Your task to perform on an android device: star an email in the gmail app Image 0: 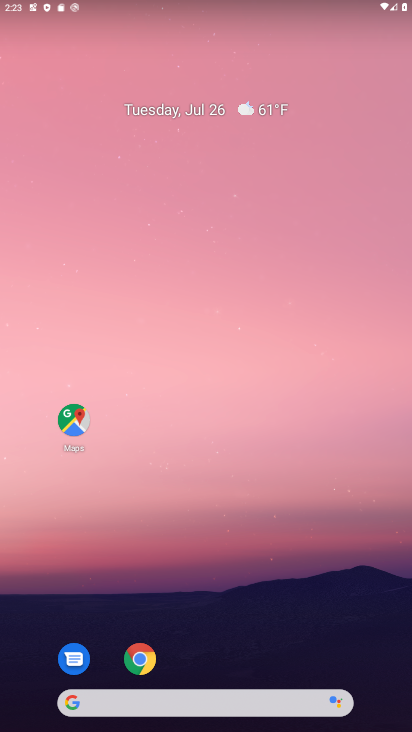
Step 0: click (274, 660)
Your task to perform on an android device: star an email in the gmail app Image 1: 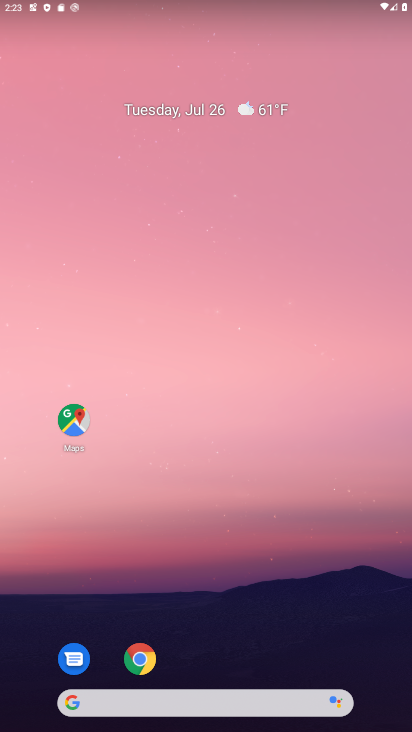
Step 1: drag from (184, 634) to (178, 71)
Your task to perform on an android device: star an email in the gmail app Image 2: 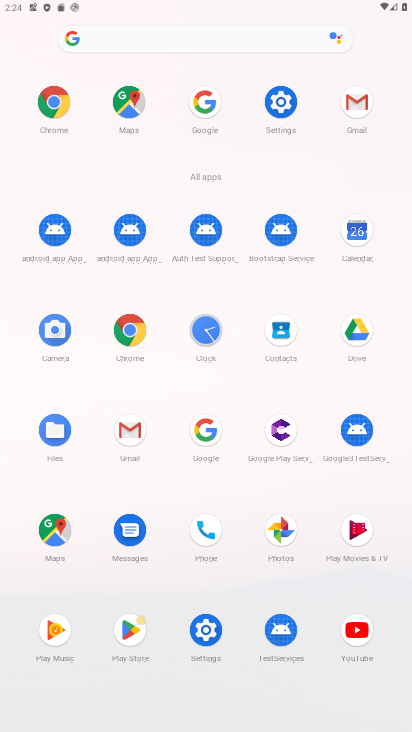
Step 2: click (355, 118)
Your task to perform on an android device: star an email in the gmail app Image 3: 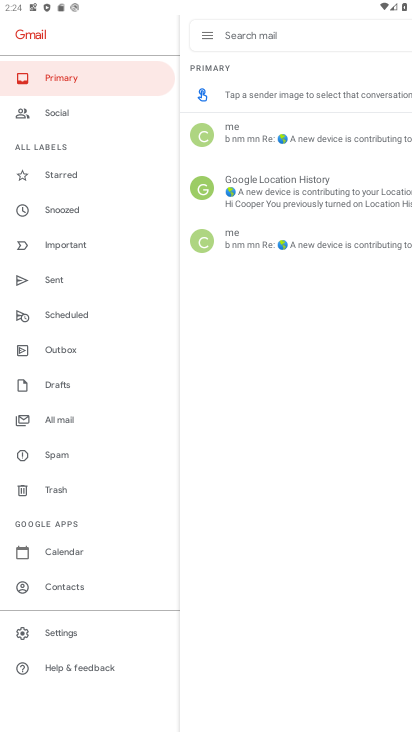
Step 3: click (244, 148)
Your task to perform on an android device: star an email in the gmail app Image 4: 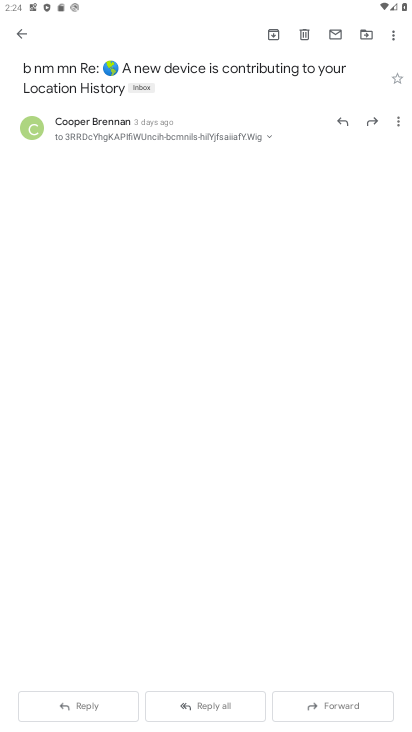
Step 4: click (400, 76)
Your task to perform on an android device: star an email in the gmail app Image 5: 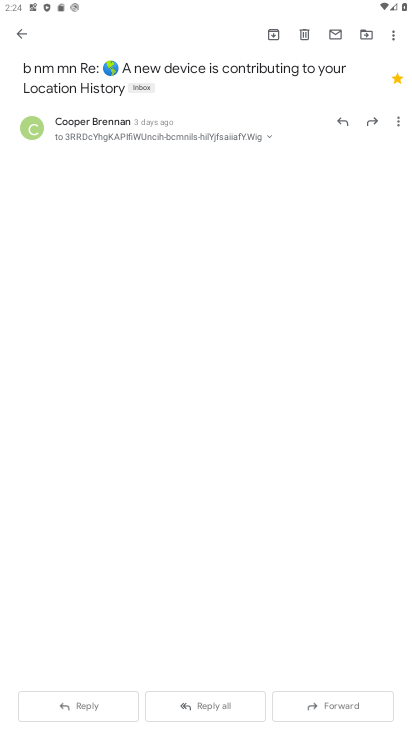
Step 5: task complete